Your task to perform on an android device: Go to settings Image 0: 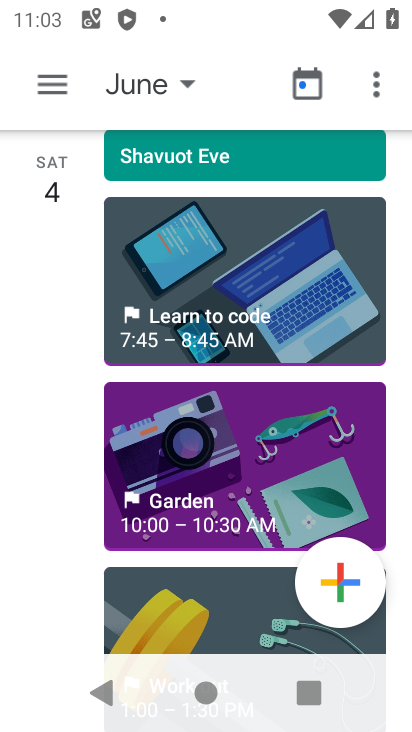
Step 0: press home button
Your task to perform on an android device: Go to settings Image 1: 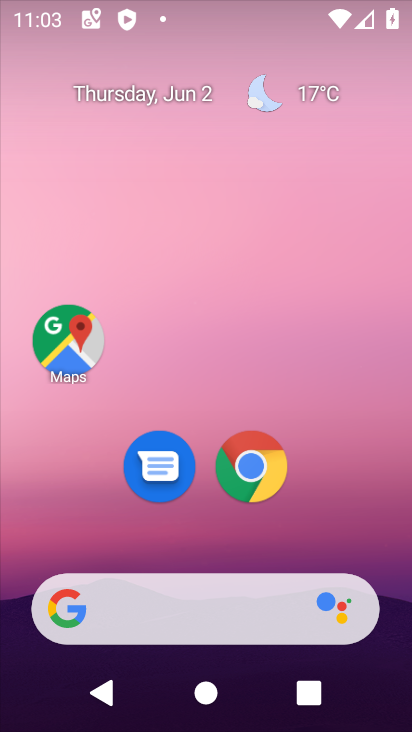
Step 1: drag from (150, 591) to (192, 170)
Your task to perform on an android device: Go to settings Image 2: 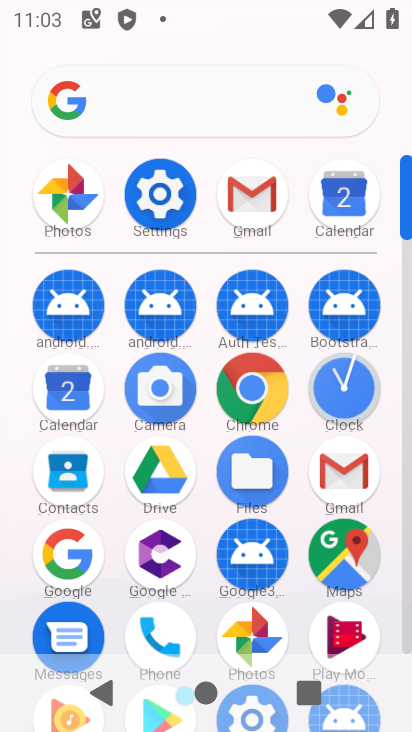
Step 2: click (172, 179)
Your task to perform on an android device: Go to settings Image 3: 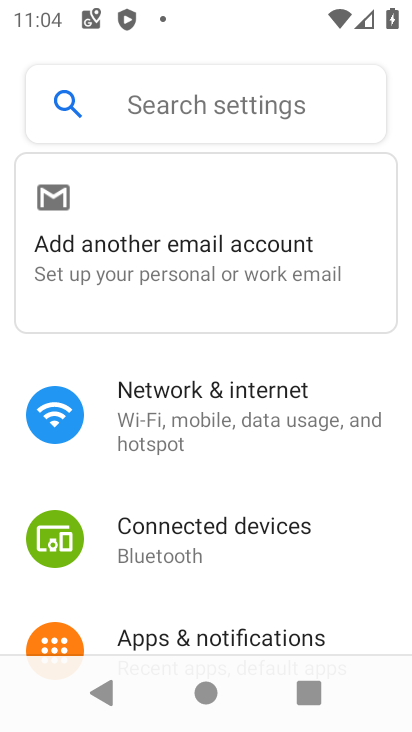
Step 3: task complete